Your task to perform on an android device: Open the phone app and click the voicemail tab. Image 0: 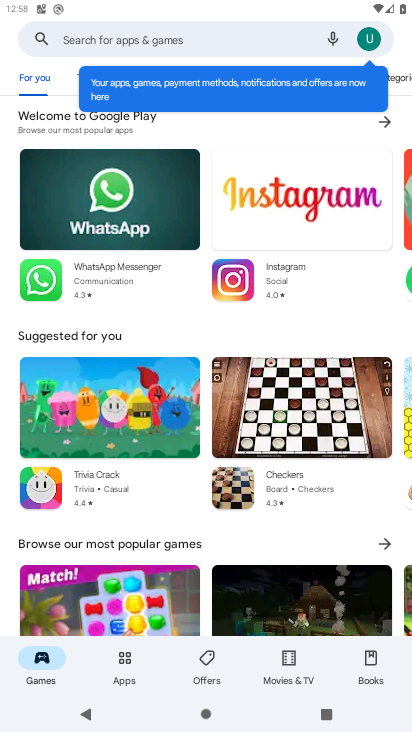
Step 0: press home button
Your task to perform on an android device: Open the phone app and click the voicemail tab. Image 1: 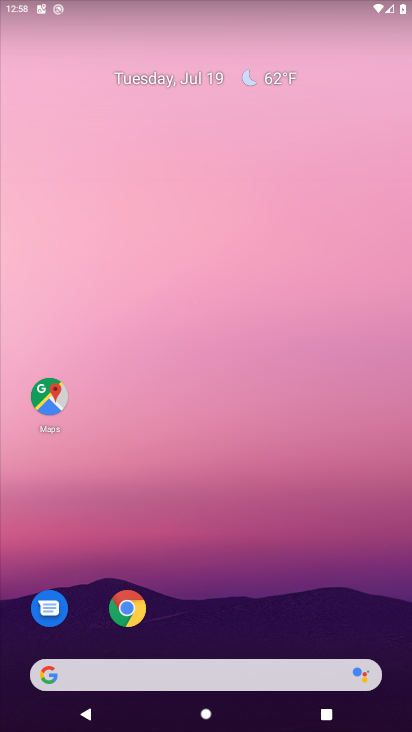
Step 1: drag from (218, 639) to (243, 72)
Your task to perform on an android device: Open the phone app and click the voicemail tab. Image 2: 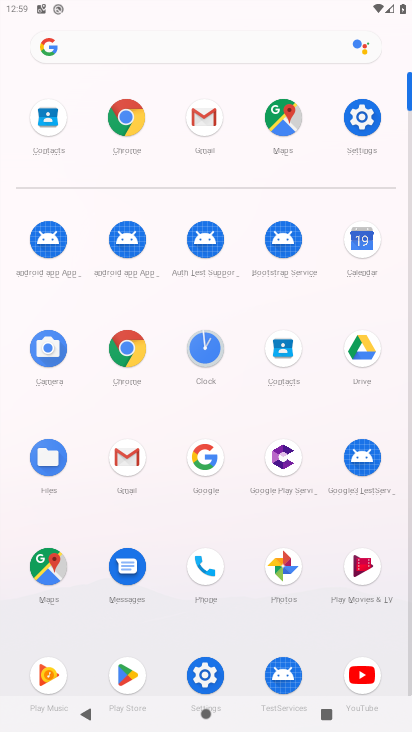
Step 2: click (207, 558)
Your task to perform on an android device: Open the phone app and click the voicemail tab. Image 3: 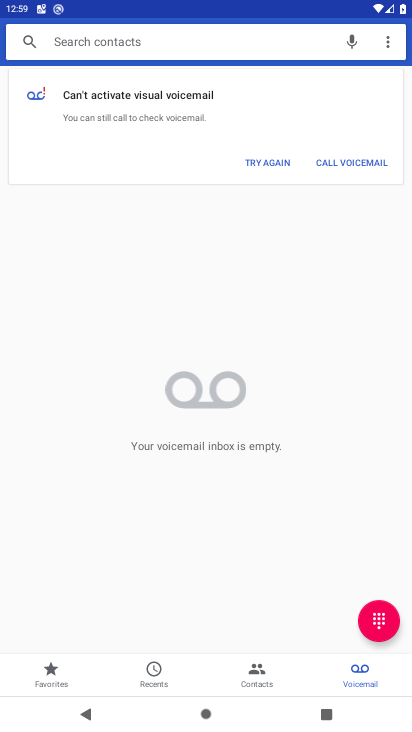
Step 3: task complete